Your task to perform on an android device: delete a single message in the gmail app Image 0: 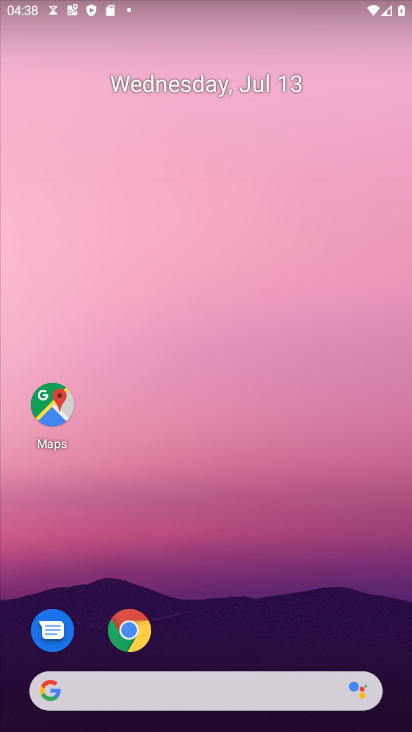
Step 0: drag from (175, 711) to (267, 61)
Your task to perform on an android device: delete a single message in the gmail app Image 1: 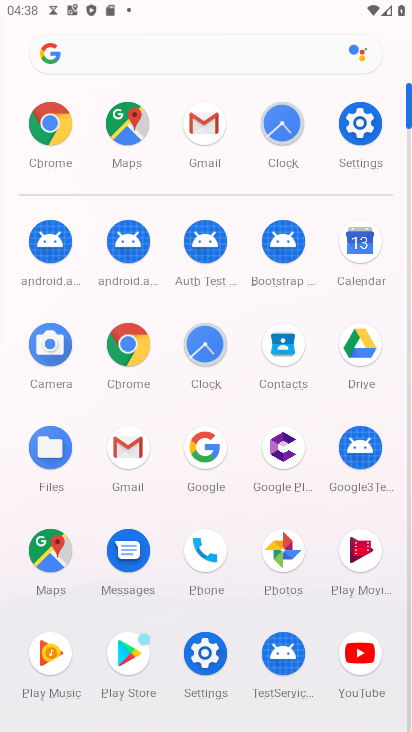
Step 1: click (130, 449)
Your task to perform on an android device: delete a single message in the gmail app Image 2: 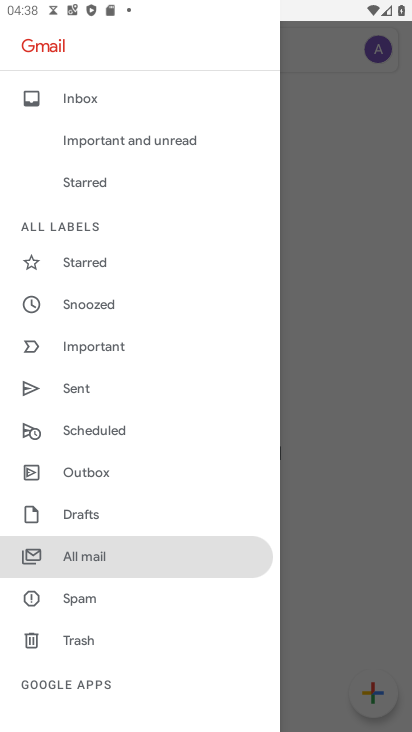
Step 2: click (108, 95)
Your task to perform on an android device: delete a single message in the gmail app Image 3: 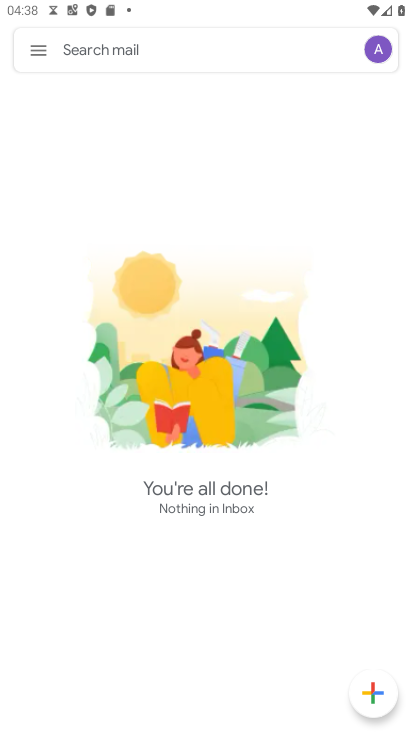
Step 3: task complete